Your task to perform on an android device: change keyboard looks Image 0: 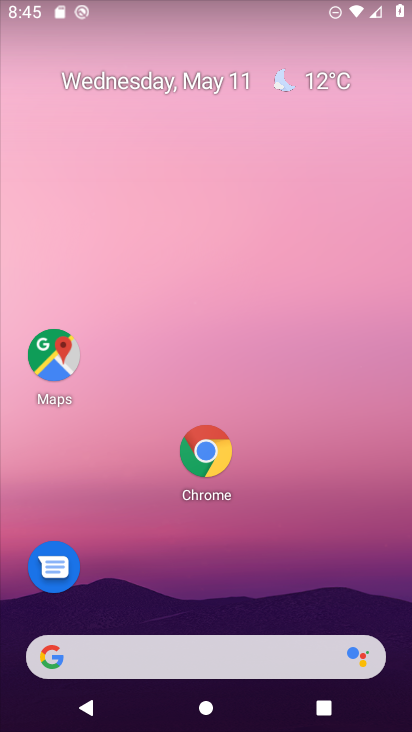
Step 0: drag from (224, 656) to (347, 77)
Your task to perform on an android device: change keyboard looks Image 1: 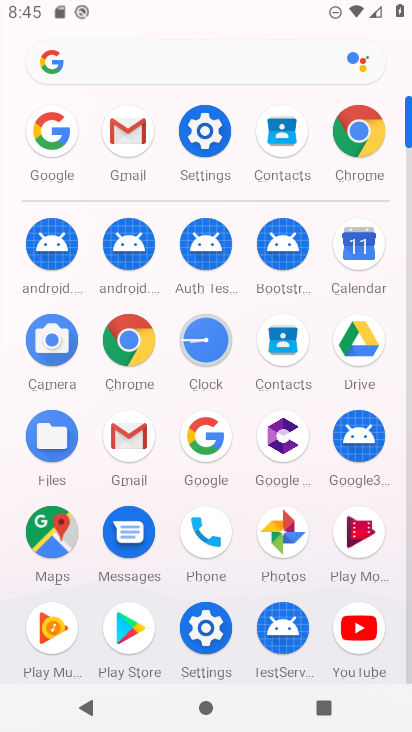
Step 1: click (212, 138)
Your task to perform on an android device: change keyboard looks Image 2: 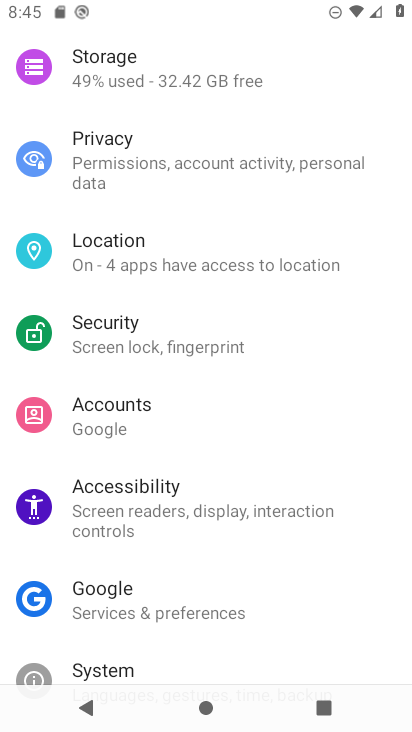
Step 2: drag from (188, 574) to (236, 238)
Your task to perform on an android device: change keyboard looks Image 3: 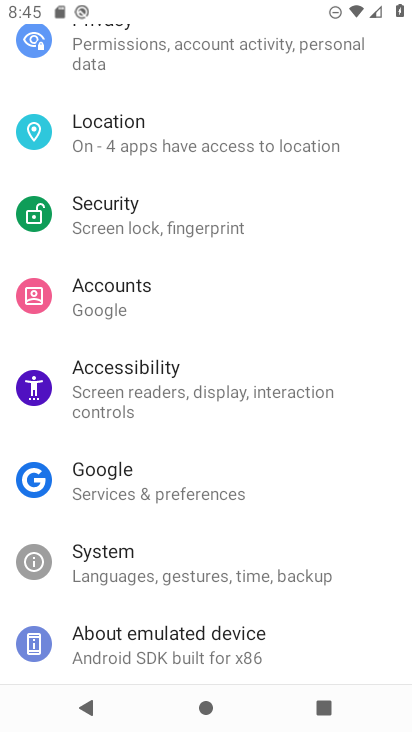
Step 3: click (154, 572)
Your task to perform on an android device: change keyboard looks Image 4: 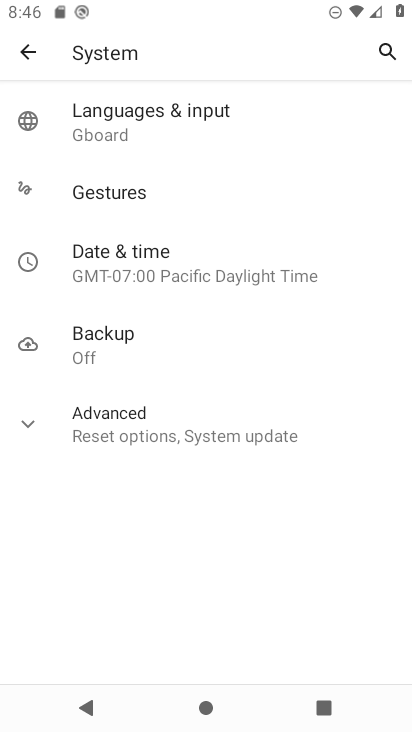
Step 4: click (188, 125)
Your task to perform on an android device: change keyboard looks Image 5: 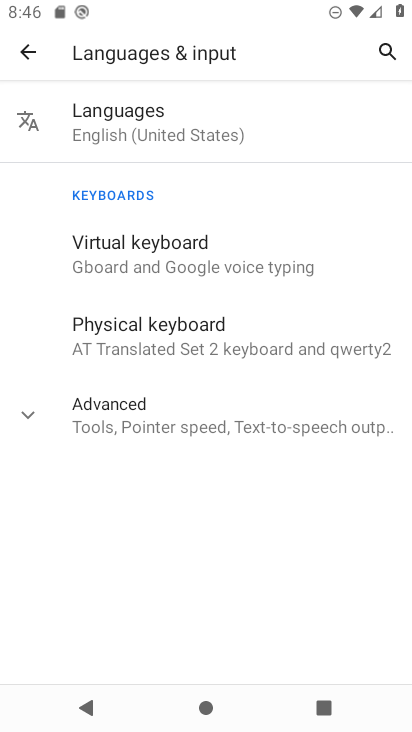
Step 5: click (150, 257)
Your task to perform on an android device: change keyboard looks Image 6: 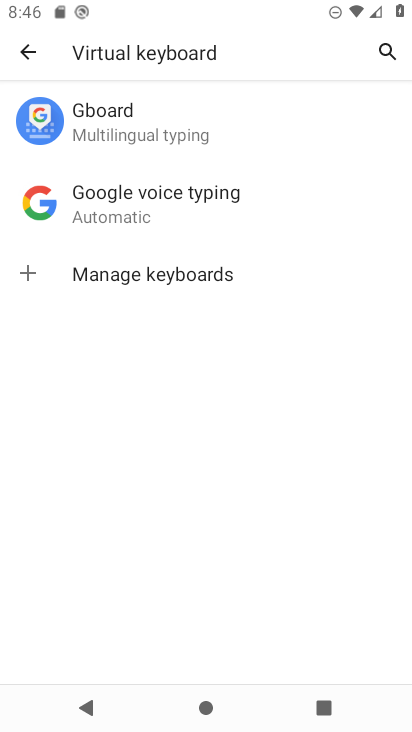
Step 6: click (132, 130)
Your task to perform on an android device: change keyboard looks Image 7: 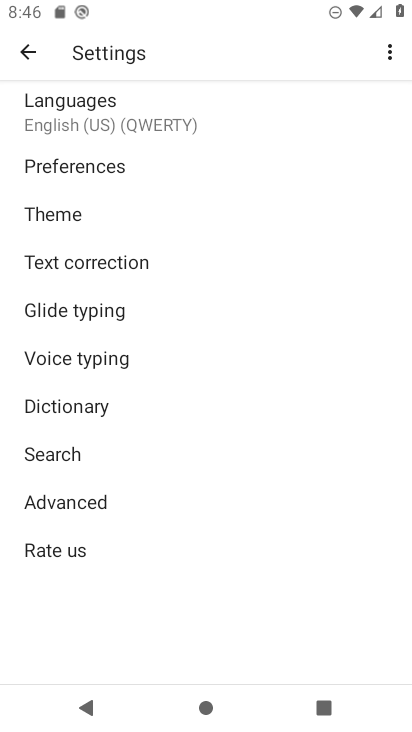
Step 7: click (77, 211)
Your task to perform on an android device: change keyboard looks Image 8: 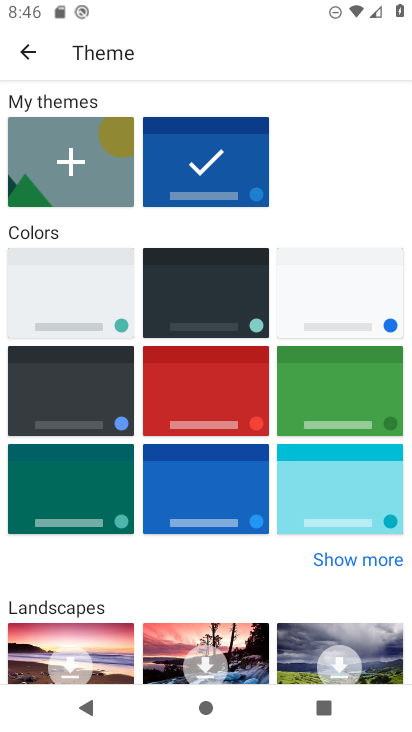
Step 8: click (362, 499)
Your task to perform on an android device: change keyboard looks Image 9: 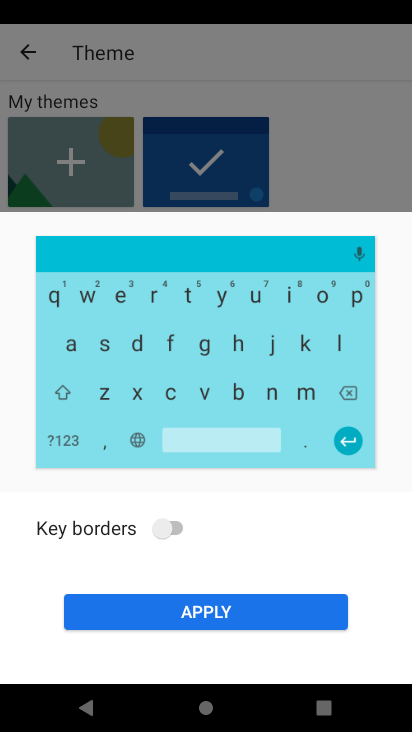
Step 9: click (262, 629)
Your task to perform on an android device: change keyboard looks Image 10: 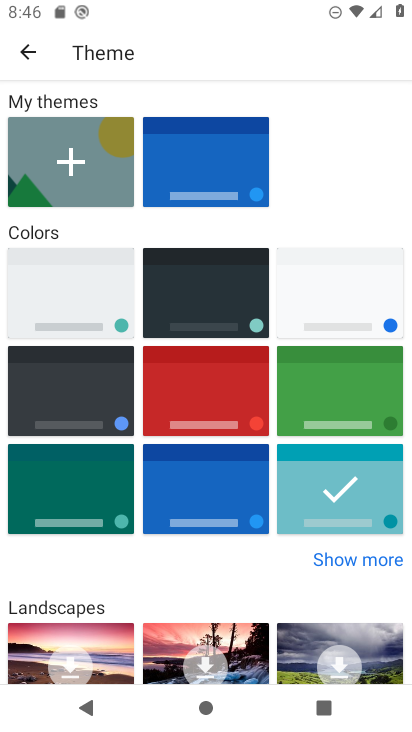
Step 10: task complete